Your task to perform on an android device: Go to Wikipedia Image 0: 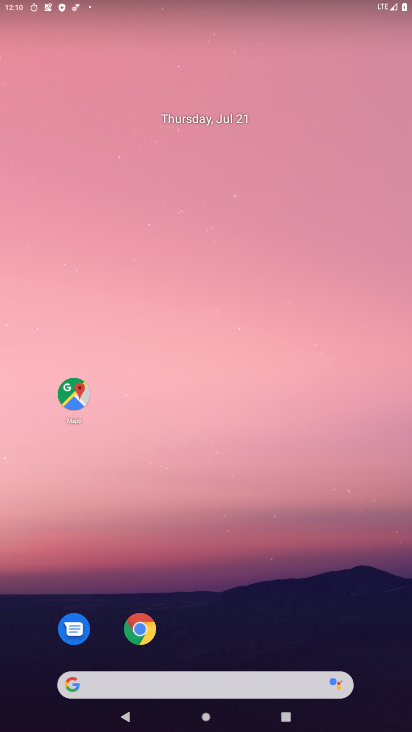
Step 0: drag from (169, 648) to (205, 38)
Your task to perform on an android device: Go to Wikipedia Image 1: 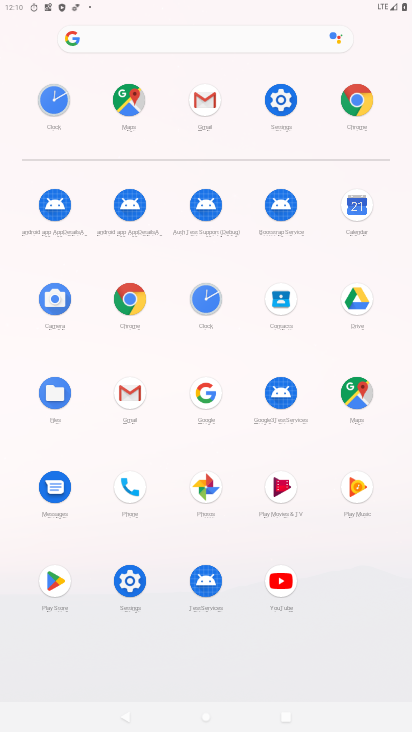
Step 1: click (136, 293)
Your task to perform on an android device: Go to Wikipedia Image 2: 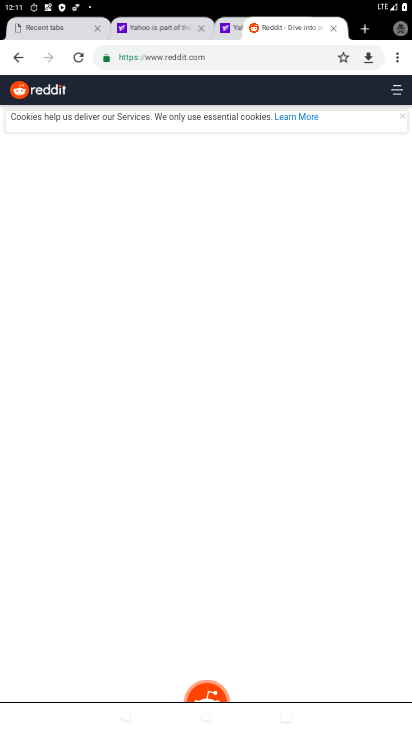
Step 2: drag from (393, 56) to (325, 59)
Your task to perform on an android device: Go to Wikipedia Image 3: 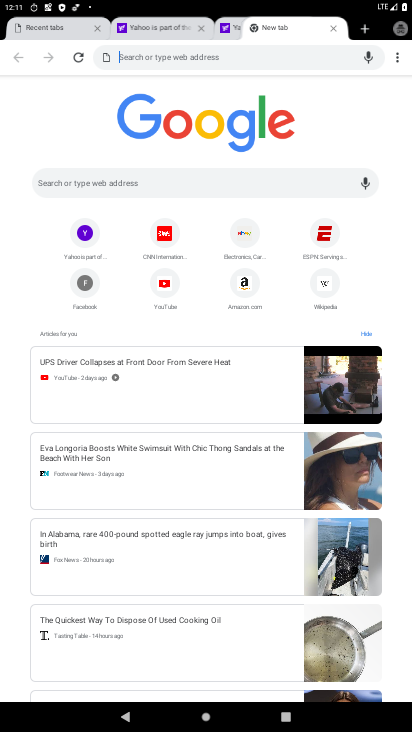
Step 3: click (318, 287)
Your task to perform on an android device: Go to Wikipedia Image 4: 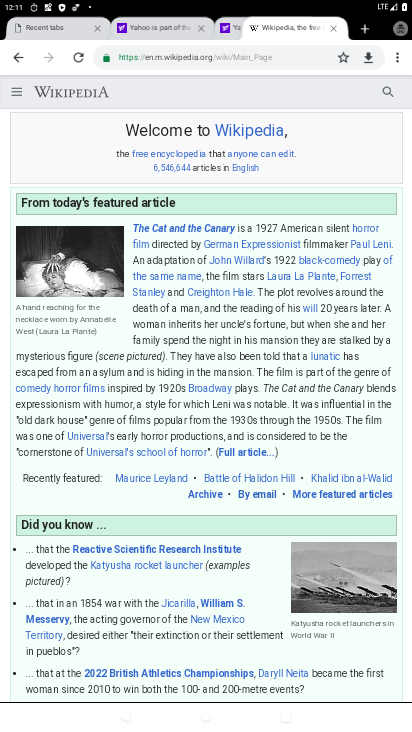
Step 4: task complete